Your task to perform on an android device: toggle airplane mode Image 0: 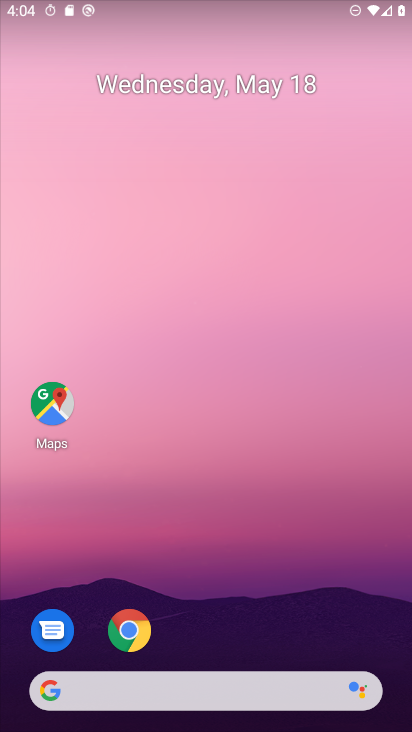
Step 0: press home button
Your task to perform on an android device: toggle airplane mode Image 1: 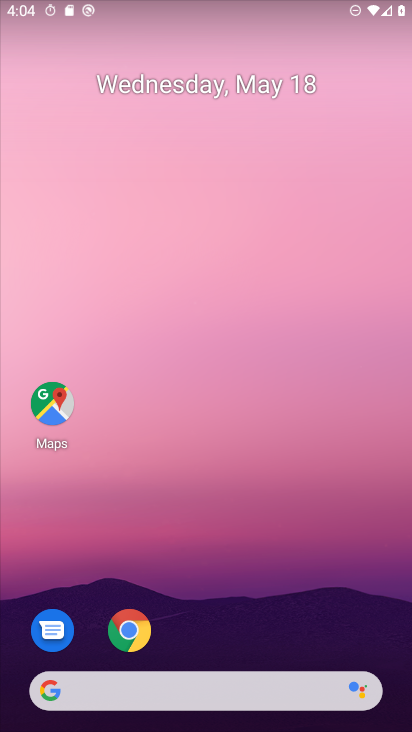
Step 1: drag from (241, 9) to (312, 508)
Your task to perform on an android device: toggle airplane mode Image 2: 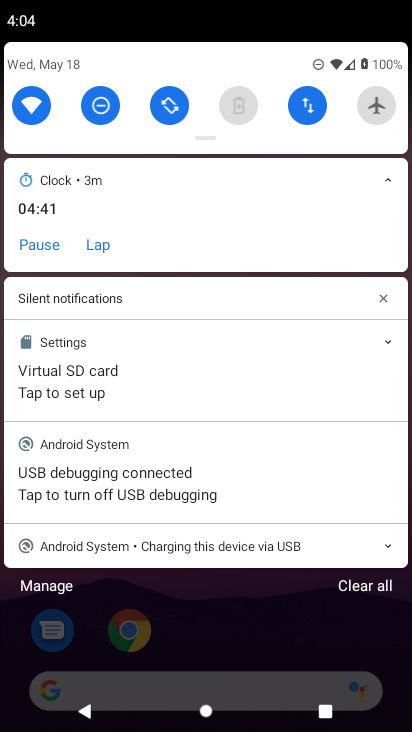
Step 2: click (376, 98)
Your task to perform on an android device: toggle airplane mode Image 3: 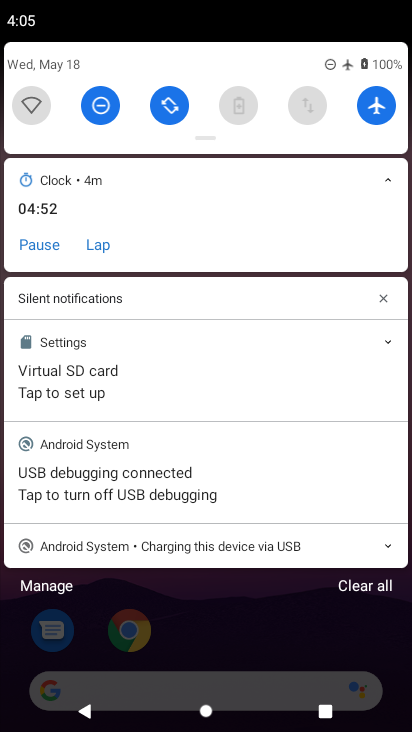
Step 3: task complete